Your task to perform on an android device: Open the Play Movies app and select the watchlist tab. Image 0: 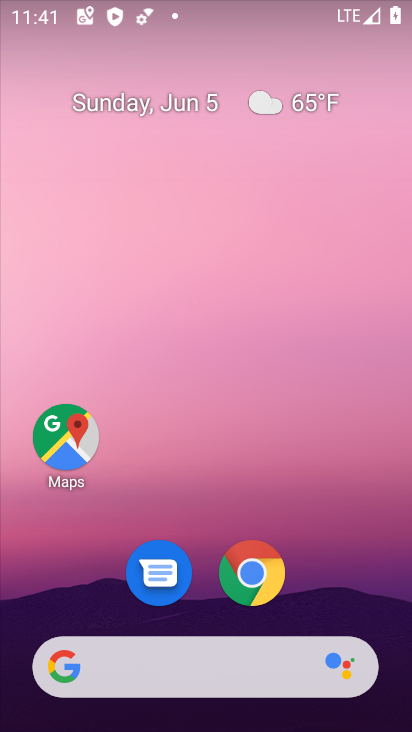
Step 0: drag from (202, 451) to (248, 126)
Your task to perform on an android device: Open the Play Movies app and select the watchlist tab. Image 1: 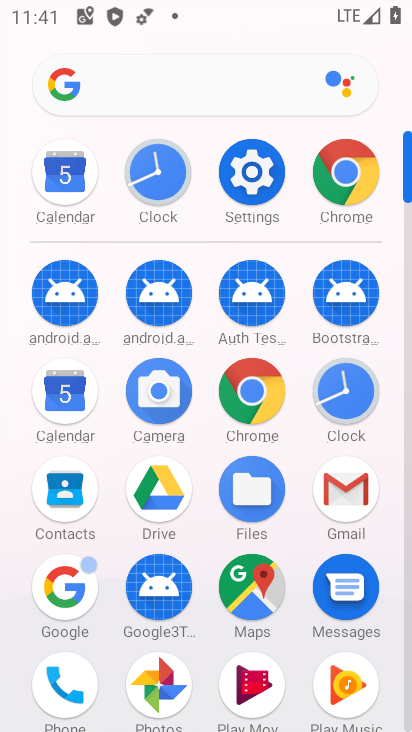
Step 1: drag from (201, 412) to (198, 170)
Your task to perform on an android device: Open the Play Movies app and select the watchlist tab. Image 2: 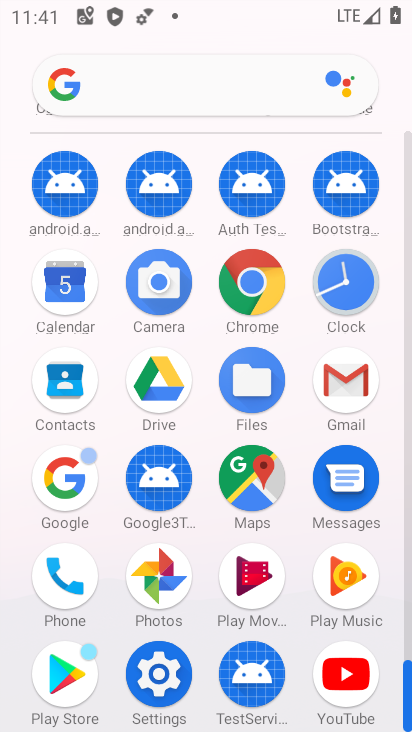
Step 2: click (264, 589)
Your task to perform on an android device: Open the Play Movies app and select the watchlist tab. Image 3: 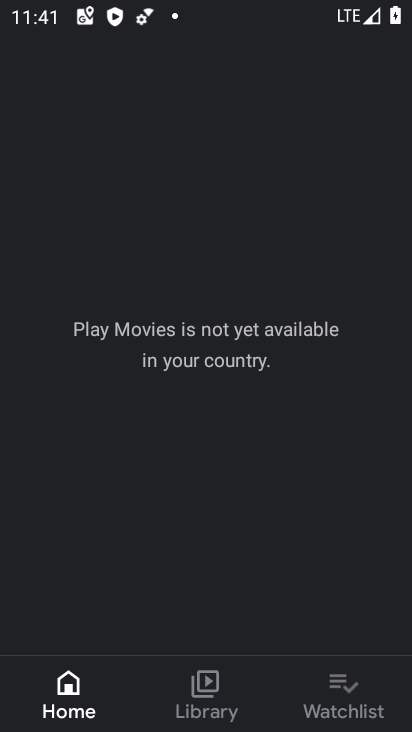
Step 3: click (334, 700)
Your task to perform on an android device: Open the Play Movies app and select the watchlist tab. Image 4: 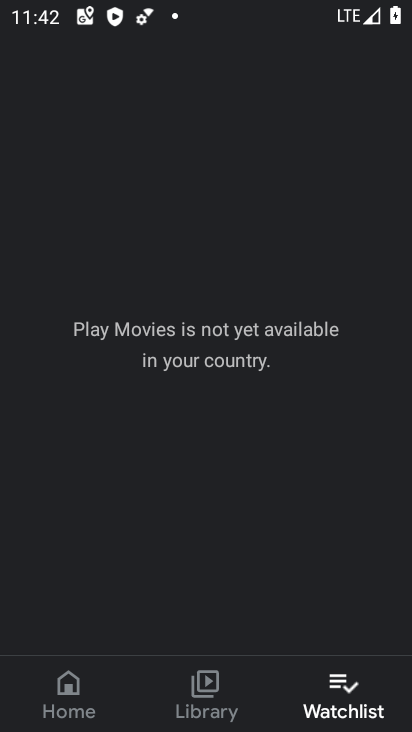
Step 4: task complete